Your task to perform on an android device: open a new tab in the chrome app Image 0: 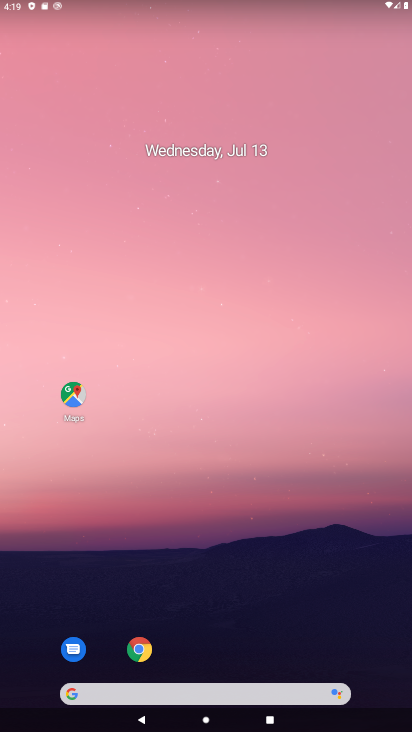
Step 0: drag from (280, 663) to (203, 122)
Your task to perform on an android device: open a new tab in the chrome app Image 1: 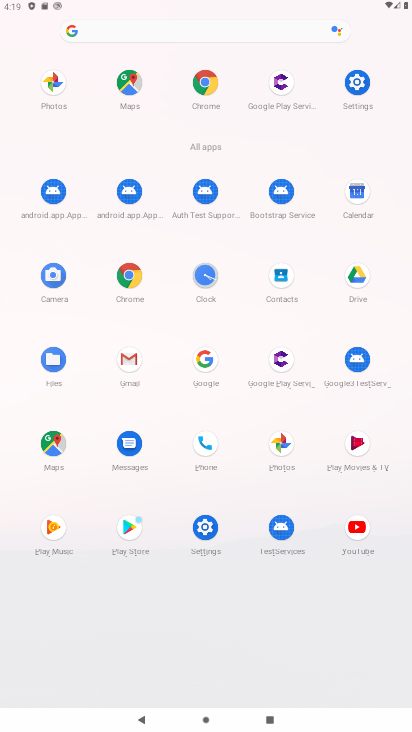
Step 1: click (197, 89)
Your task to perform on an android device: open a new tab in the chrome app Image 2: 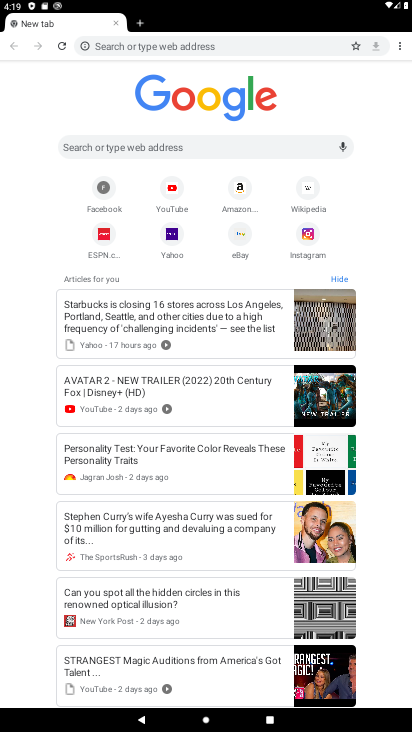
Step 2: task complete